Your task to perform on an android device: Go to Amazon Image 0: 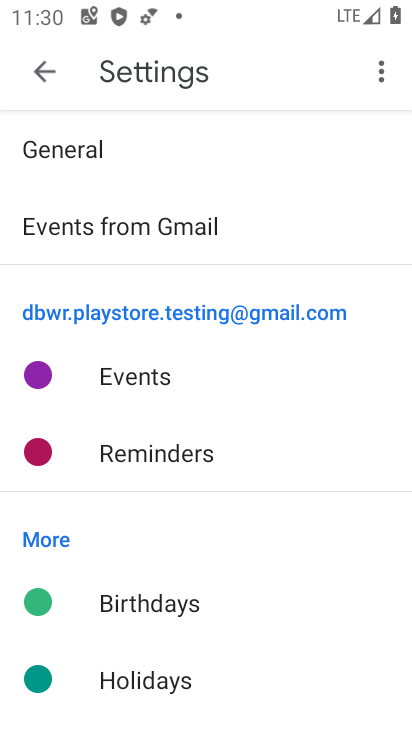
Step 0: press home button
Your task to perform on an android device: Go to Amazon Image 1: 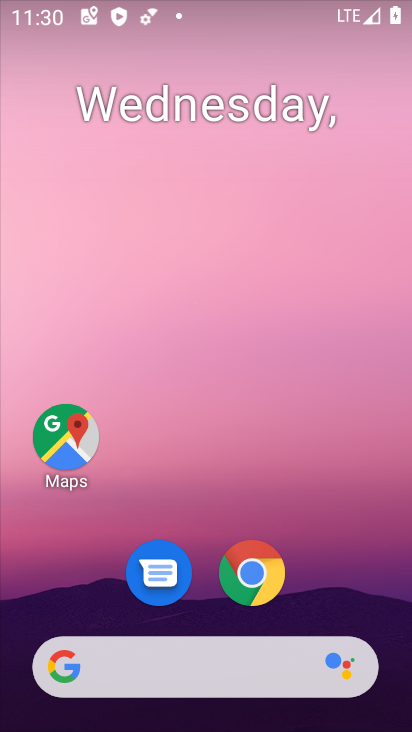
Step 1: drag from (195, 634) to (192, 380)
Your task to perform on an android device: Go to Amazon Image 2: 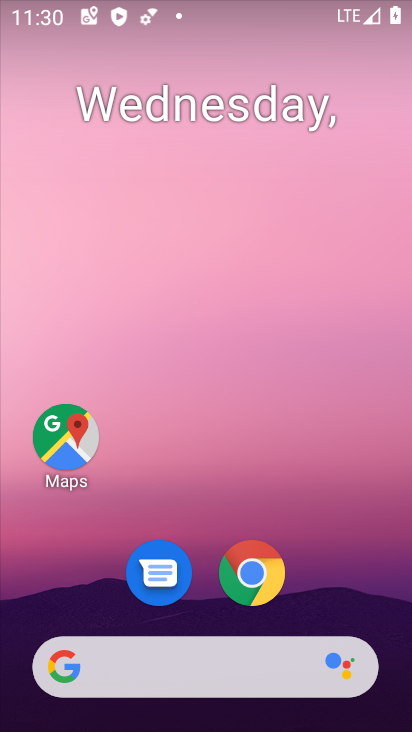
Step 2: drag from (176, 630) to (220, 271)
Your task to perform on an android device: Go to Amazon Image 3: 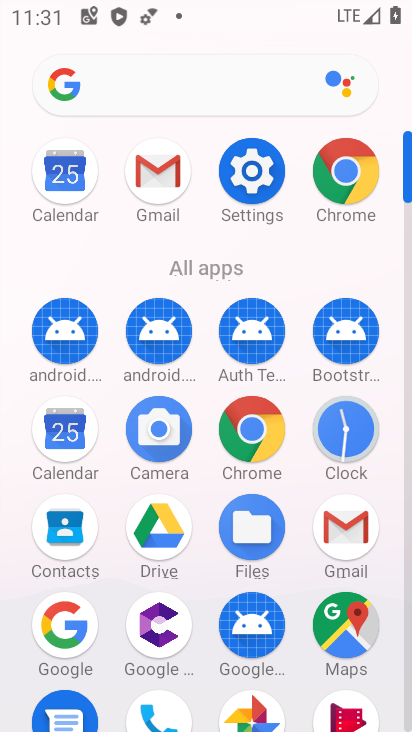
Step 3: click (324, 186)
Your task to perform on an android device: Go to Amazon Image 4: 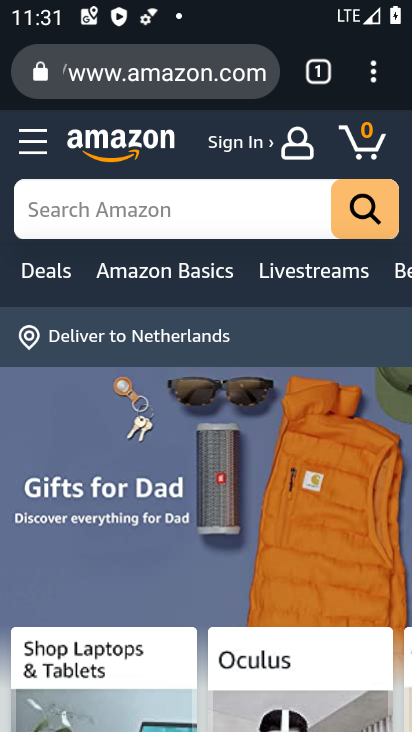
Step 4: task complete